Your task to perform on an android device: open a bookmark in the chrome app Image 0: 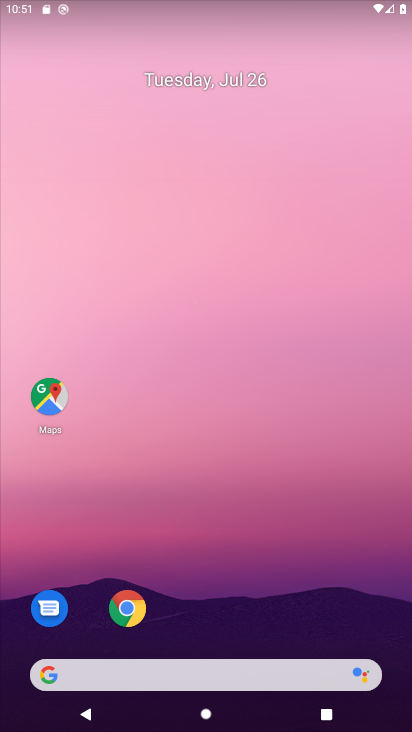
Step 0: drag from (293, 550) to (285, 54)
Your task to perform on an android device: open a bookmark in the chrome app Image 1: 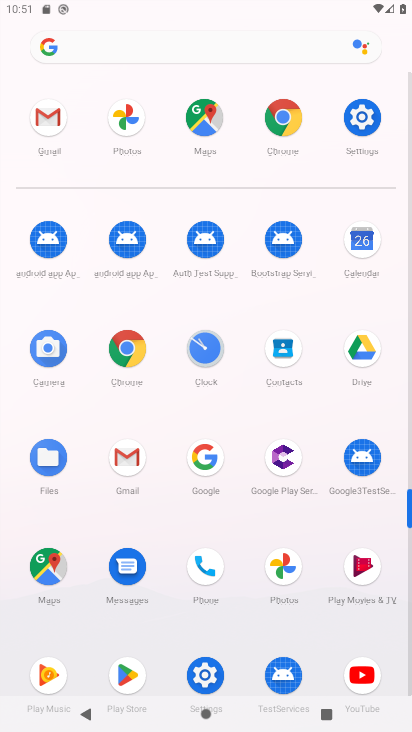
Step 1: click (283, 118)
Your task to perform on an android device: open a bookmark in the chrome app Image 2: 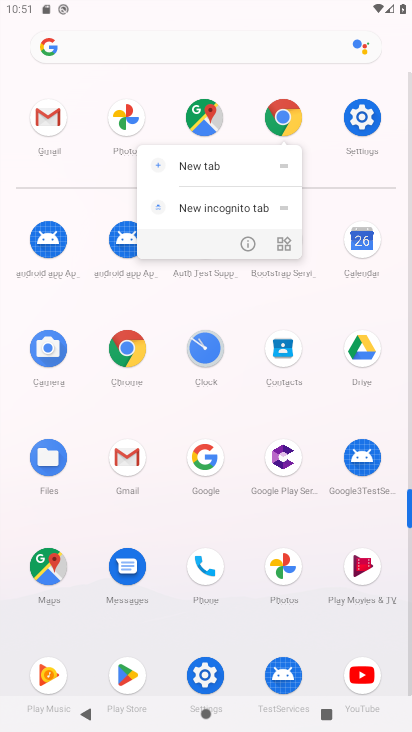
Step 2: click (279, 119)
Your task to perform on an android device: open a bookmark in the chrome app Image 3: 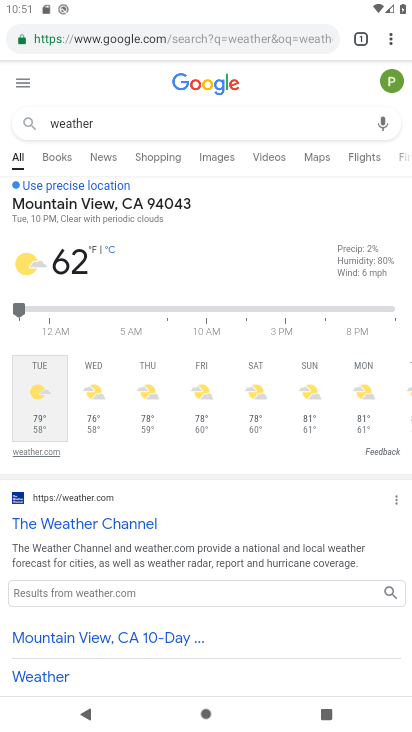
Step 3: drag from (387, 28) to (285, 145)
Your task to perform on an android device: open a bookmark in the chrome app Image 4: 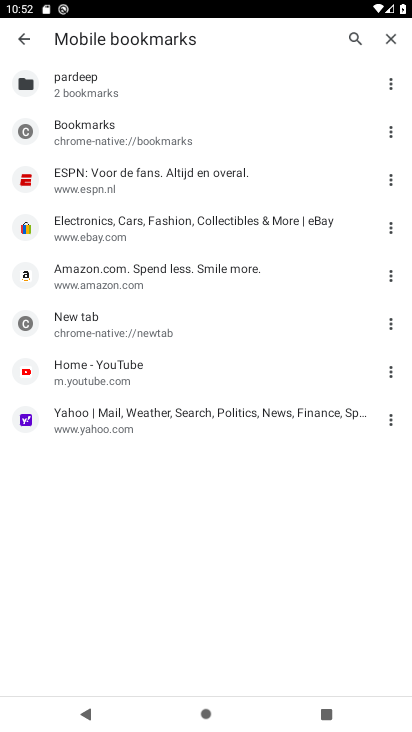
Step 4: click (92, 174)
Your task to perform on an android device: open a bookmark in the chrome app Image 5: 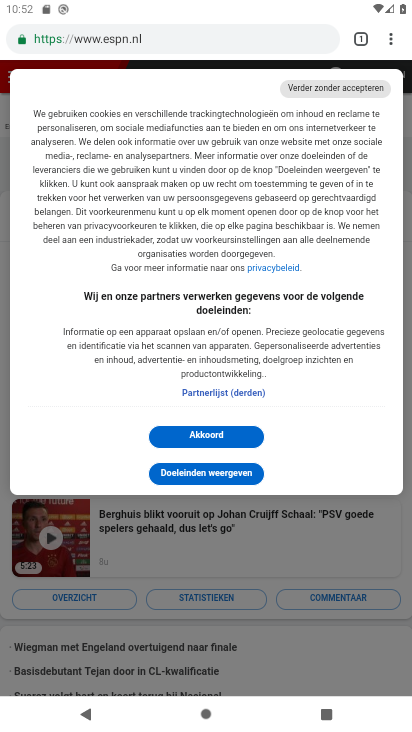
Step 5: task complete